Your task to perform on an android device: Go to Google maps Image 0: 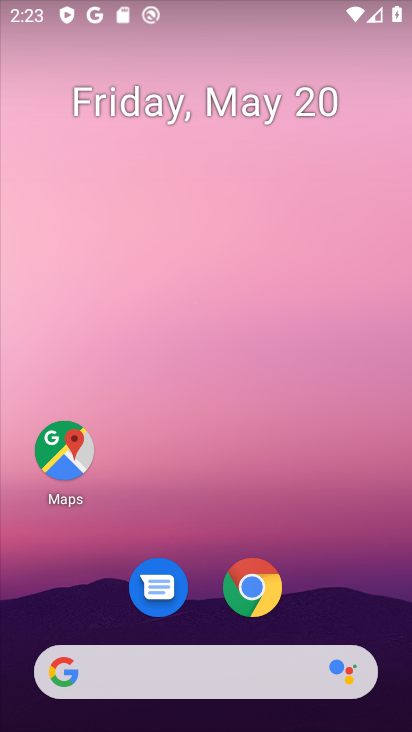
Step 0: click (56, 454)
Your task to perform on an android device: Go to Google maps Image 1: 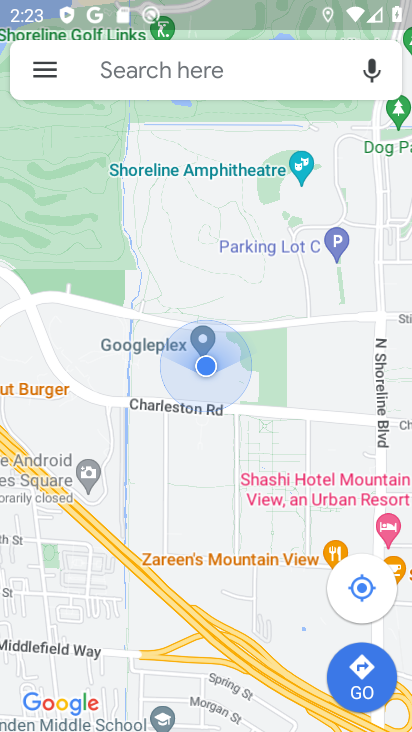
Step 1: task complete